Your task to perform on an android device: turn off location history Image 0: 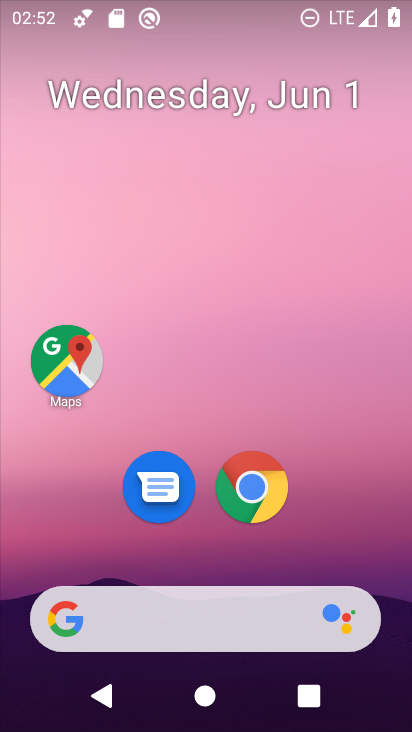
Step 0: drag from (345, 544) to (328, 236)
Your task to perform on an android device: turn off location history Image 1: 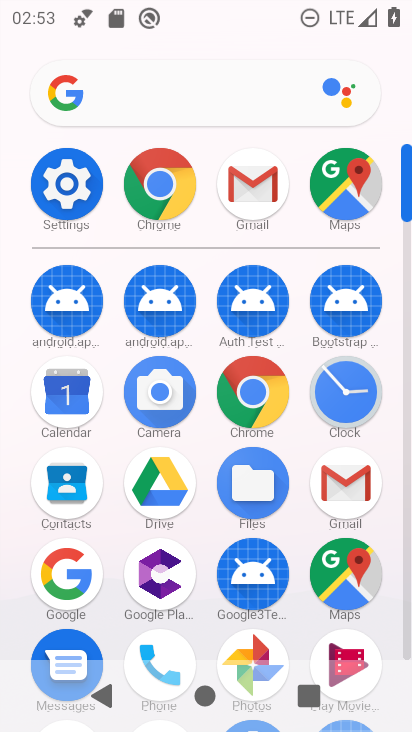
Step 1: click (155, 181)
Your task to perform on an android device: turn off location history Image 2: 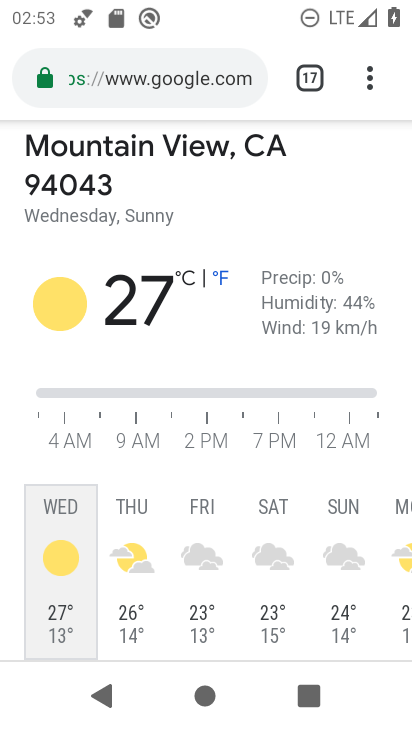
Step 2: click (358, 73)
Your task to perform on an android device: turn off location history Image 3: 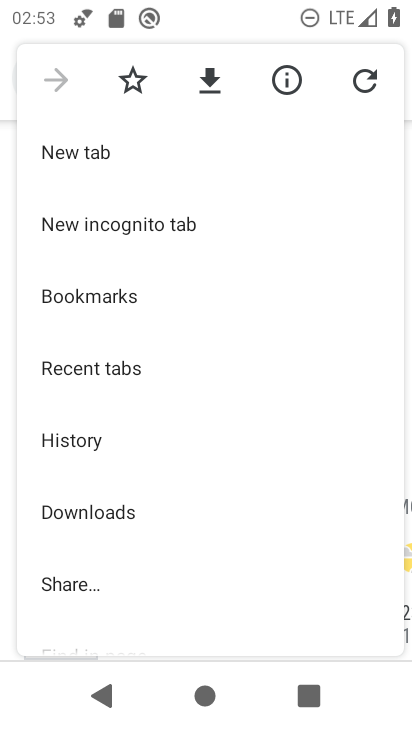
Step 3: drag from (122, 553) to (163, 334)
Your task to perform on an android device: turn off location history Image 4: 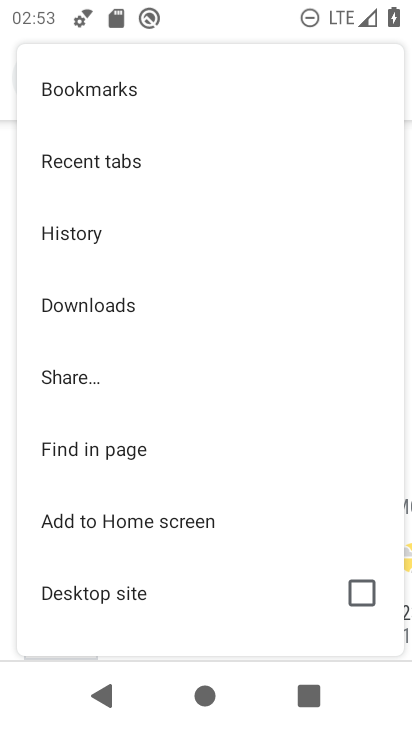
Step 4: press home button
Your task to perform on an android device: turn off location history Image 5: 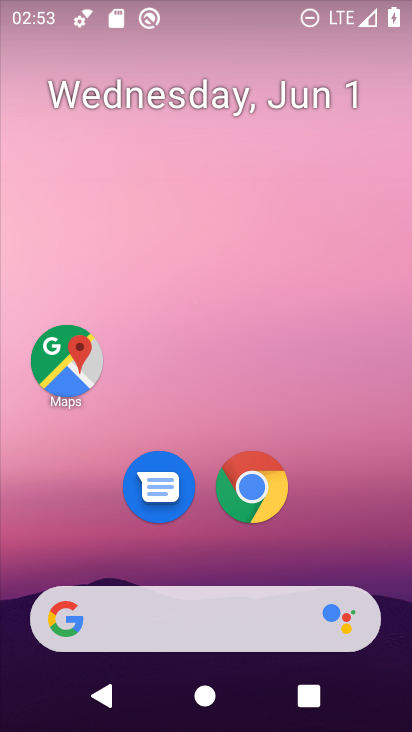
Step 5: drag from (185, 524) to (246, 113)
Your task to perform on an android device: turn off location history Image 6: 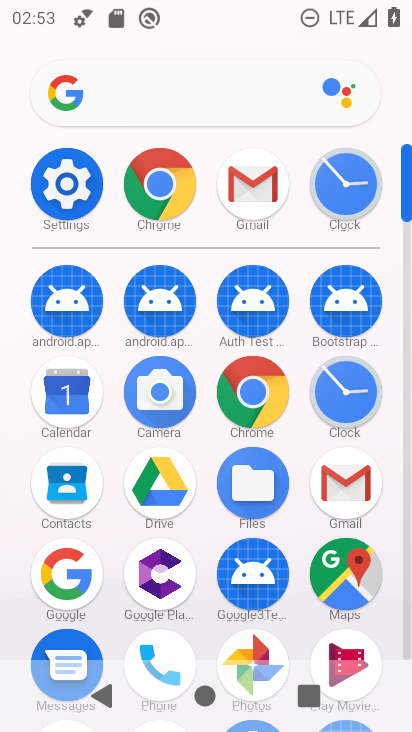
Step 6: click (49, 179)
Your task to perform on an android device: turn off location history Image 7: 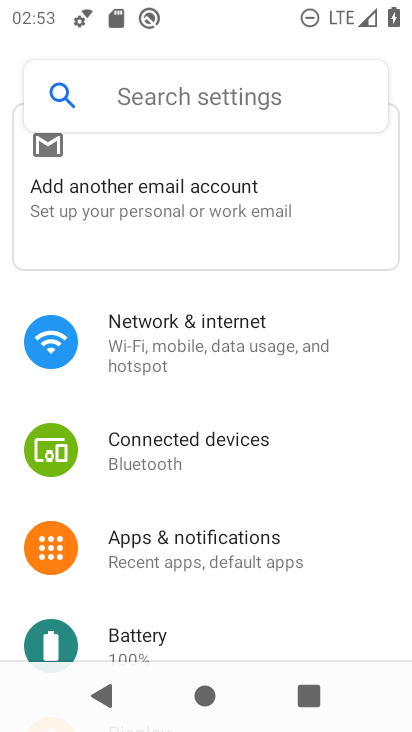
Step 7: drag from (238, 566) to (258, 300)
Your task to perform on an android device: turn off location history Image 8: 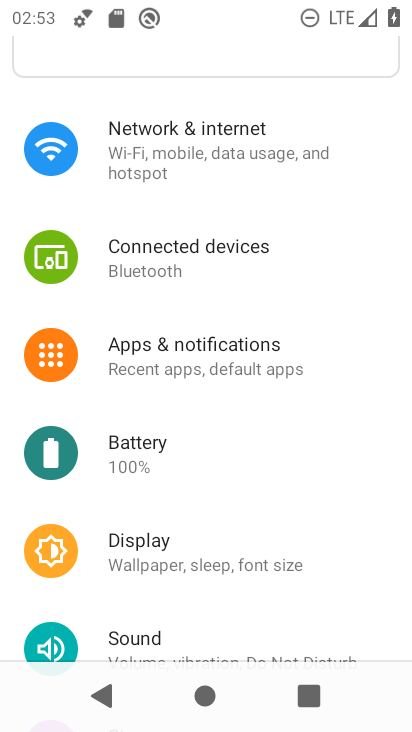
Step 8: drag from (162, 588) to (244, 277)
Your task to perform on an android device: turn off location history Image 9: 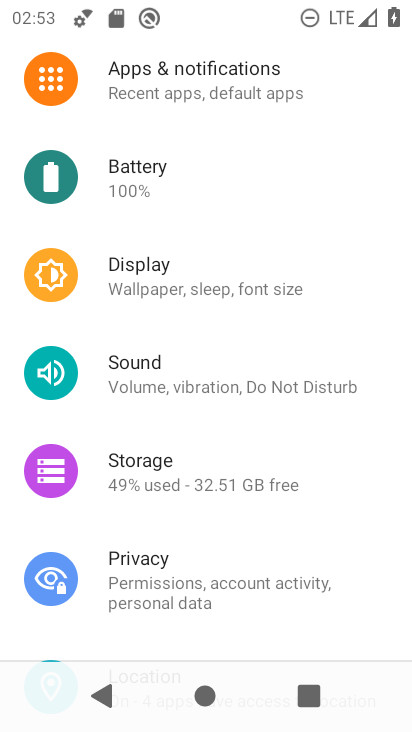
Step 9: drag from (158, 531) to (200, 233)
Your task to perform on an android device: turn off location history Image 10: 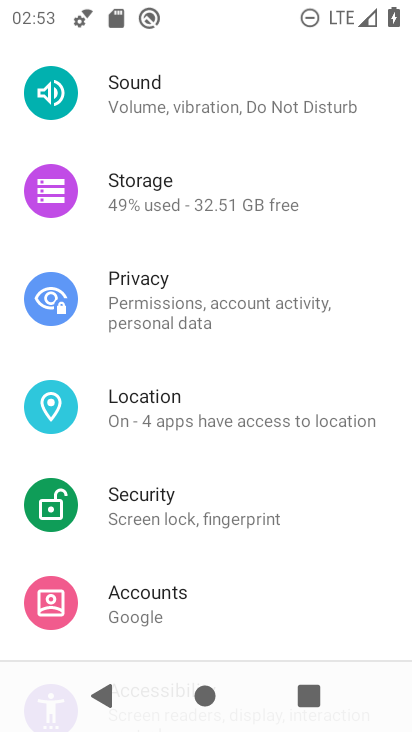
Step 10: click (186, 414)
Your task to perform on an android device: turn off location history Image 11: 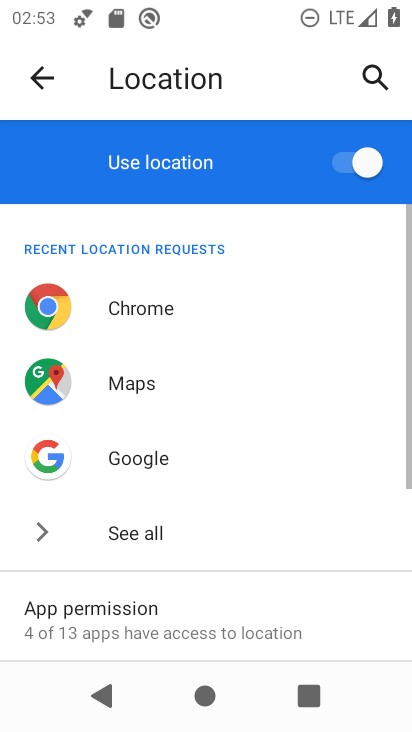
Step 11: drag from (208, 584) to (227, 264)
Your task to perform on an android device: turn off location history Image 12: 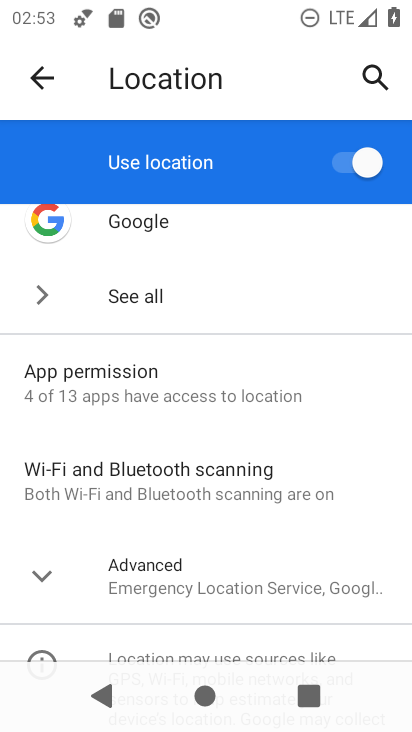
Step 12: click (184, 580)
Your task to perform on an android device: turn off location history Image 13: 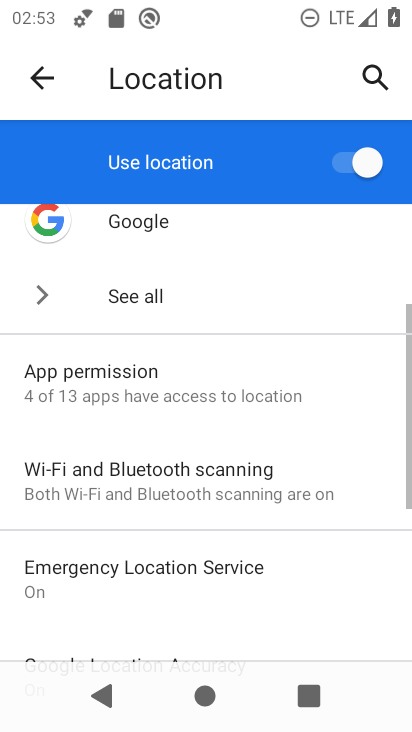
Step 13: drag from (223, 586) to (257, 332)
Your task to perform on an android device: turn off location history Image 14: 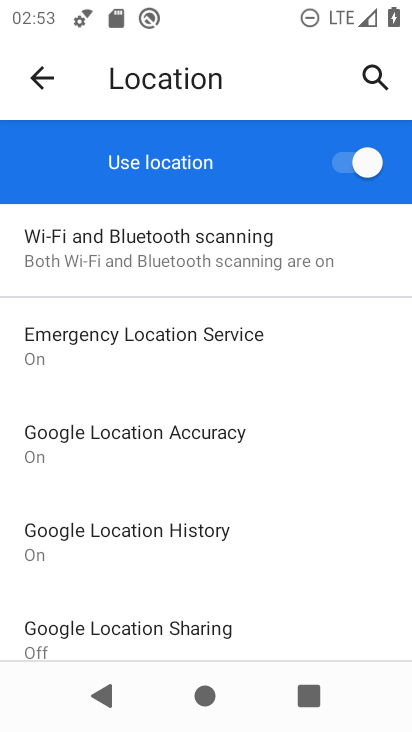
Step 14: click (148, 525)
Your task to perform on an android device: turn off location history Image 15: 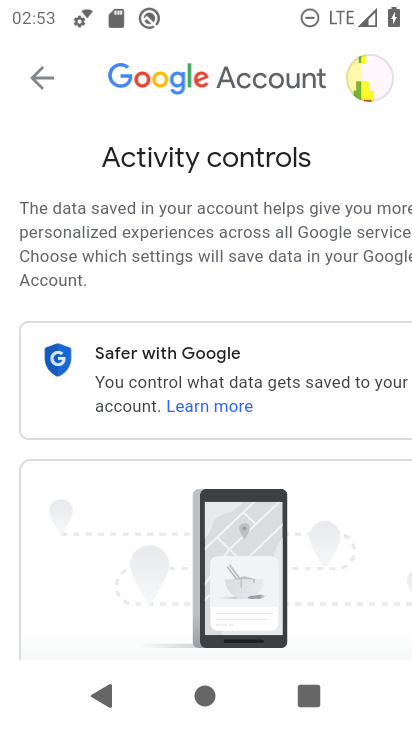
Step 15: drag from (203, 599) to (238, 302)
Your task to perform on an android device: turn off location history Image 16: 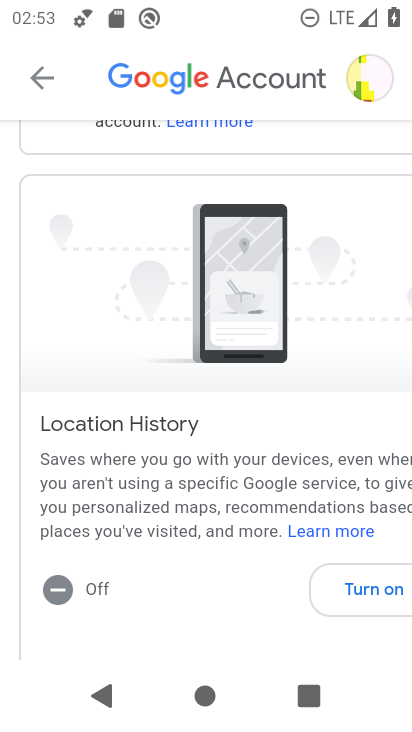
Step 16: click (349, 582)
Your task to perform on an android device: turn off location history Image 17: 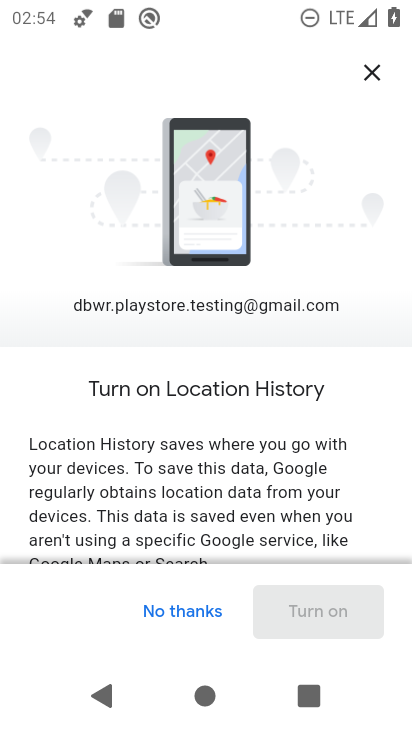
Step 17: task complete